Your task to perform on an android device: Open eBay Image 0: 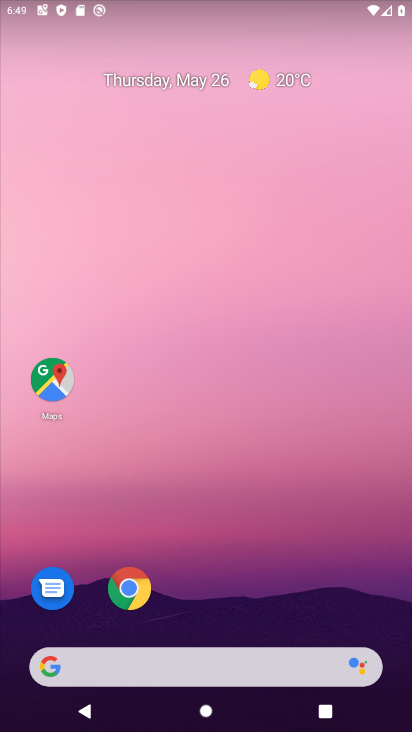
Step 0: drag from (386, 604) to (208, 81)
Your task to perform on an android device: Open eBay Image 1: 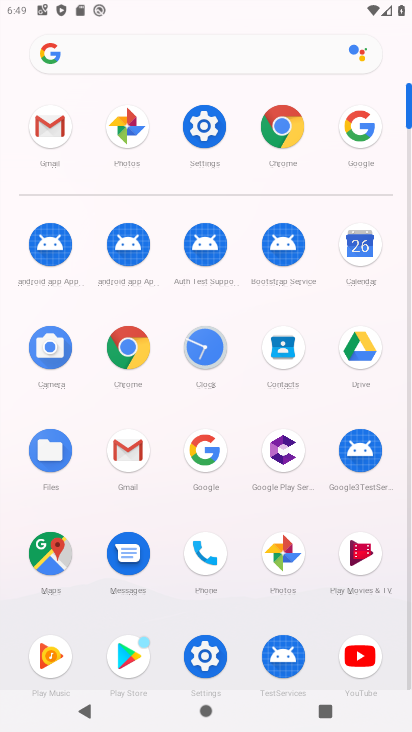
Step 1: click (198, 449)
Your task to perform on an android device: Open eBay Image 2: 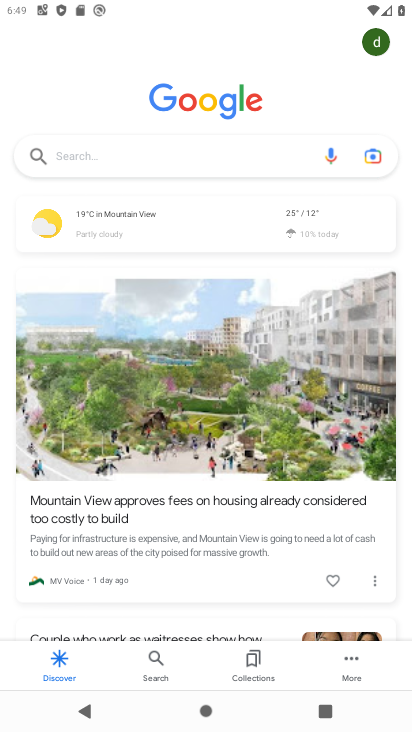
Step 2: click (156, 156)
Your task to perform on an android device: Open eBay Image 3: 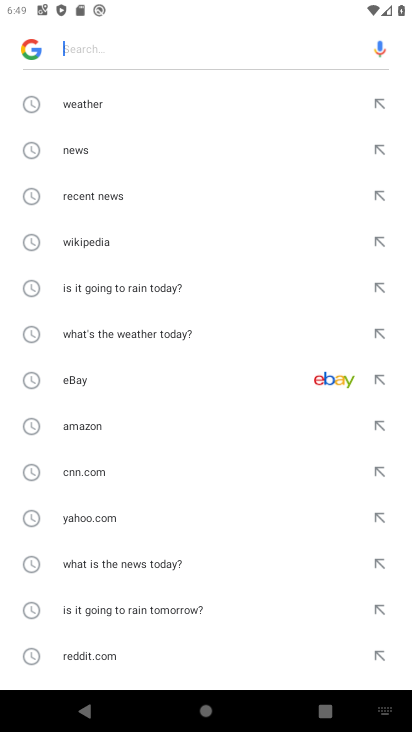
Step 3: click (71, 392)
Your task to perform on an android device: Open eBay Image 4: 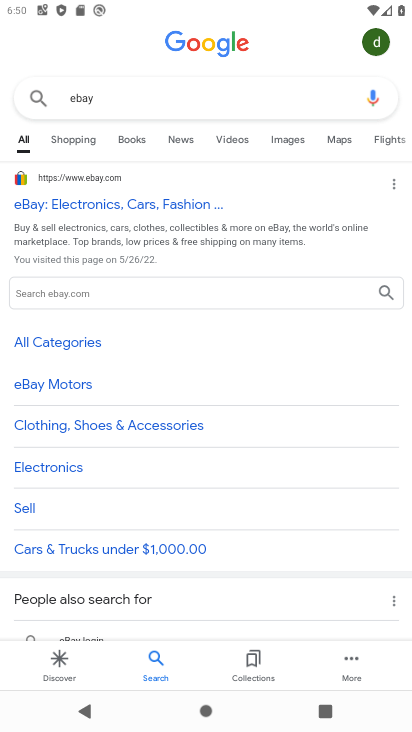
Step 4: task complete